Your task to perform on an android device: Open Maps and search for coffee Image 0: 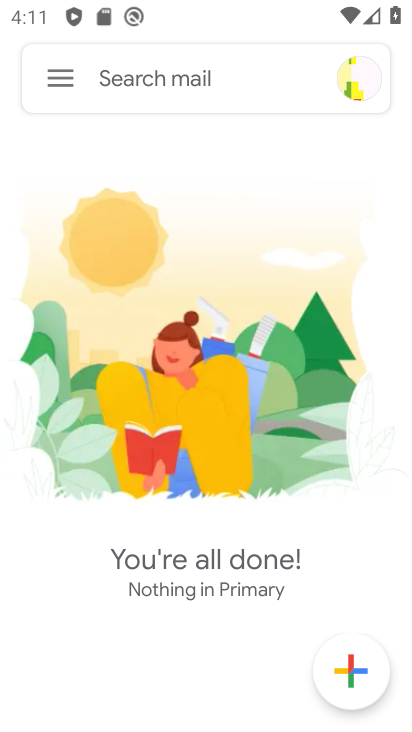
Step 0: press home button
Your task to perform on an android device: Open Maps and search for coffee Image 1: 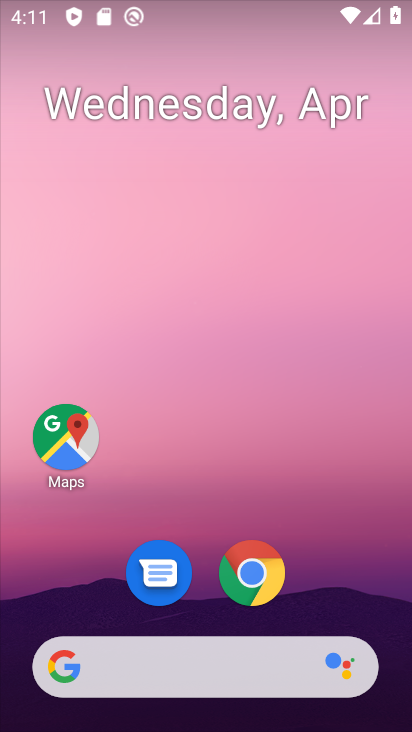
Step 1: click (62, 438)
Your task to perform on an android device: Open Maps and search for coffee Image 2: 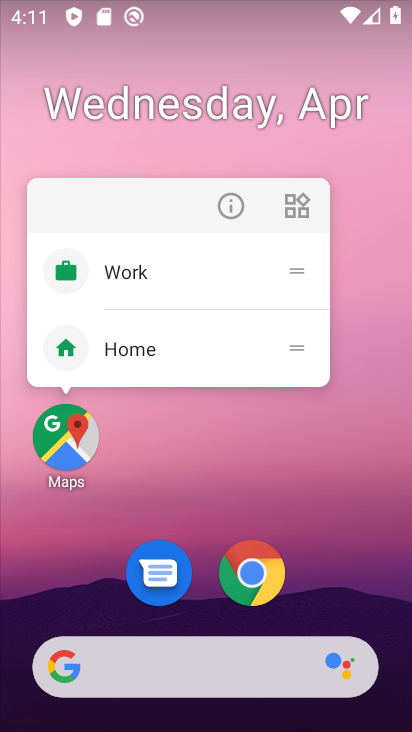
Step 2: click (62, 438)
Your task to perform on an android device: Open Maps and search for coffee Image 3: 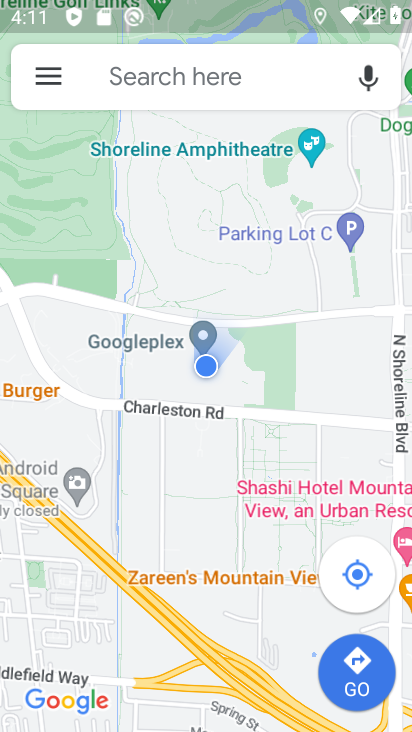
Step 3: click (116, 81)
Your task to perform on an android device: Open Maps and search for coffee Image 4: 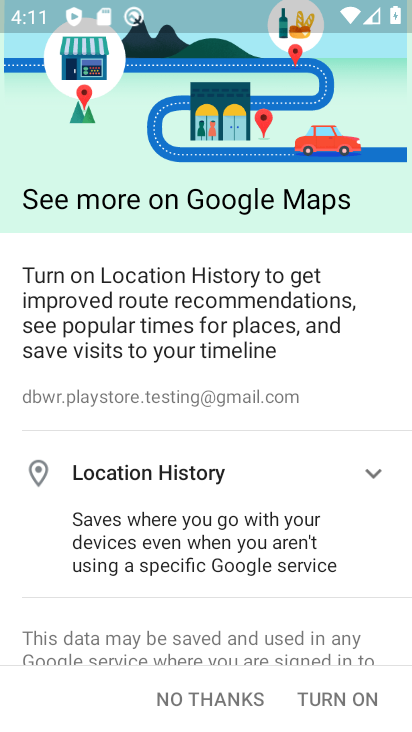
Step 4: click (192, 695)
Your task to perform on an android device: Open Maps and search for coffee Image 5: 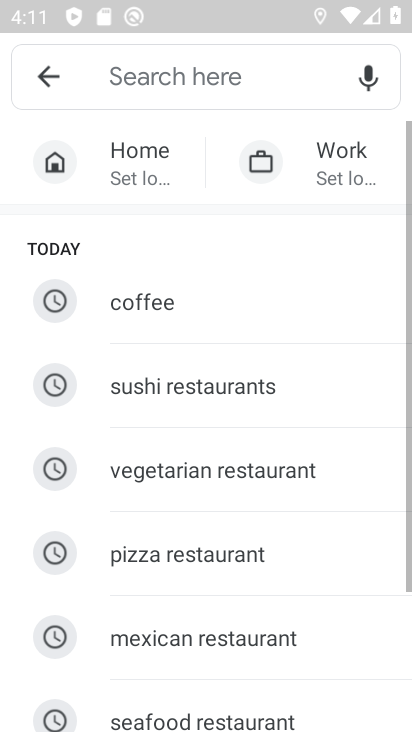
Step 5: click (149, 83)
Your task to perform on an android device: Open Maps and search for coffee Image 6: 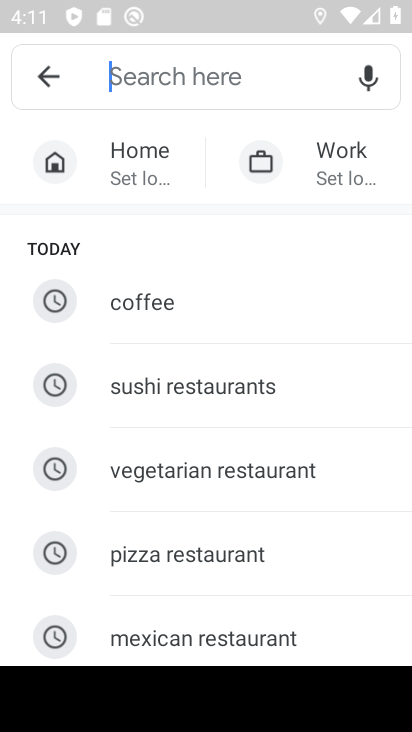
Step 6: type "coffee"
Your task to perform on an android device: Open Maps and search for coffee Image 7: 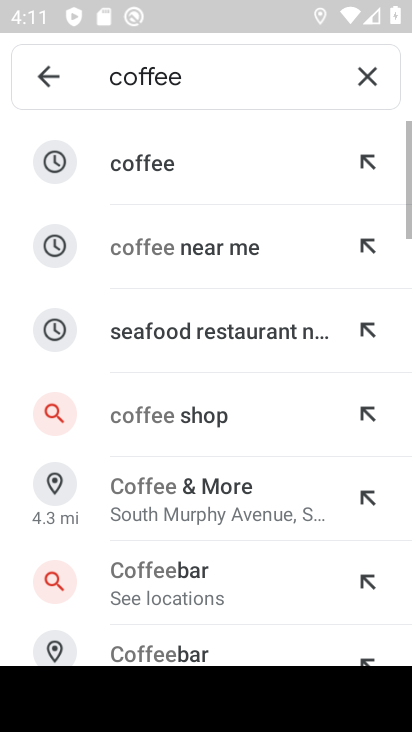
Step 7: click (142, 168)
Your task to perform on an android device: Open Maps and search for coffee Image 8: 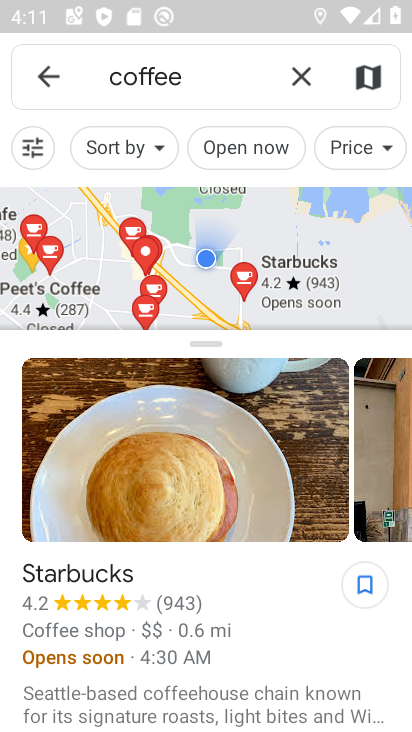
Step 8: task complete